Your task to perform on an android device: How do I get to the nearest IKEA? Image 0: 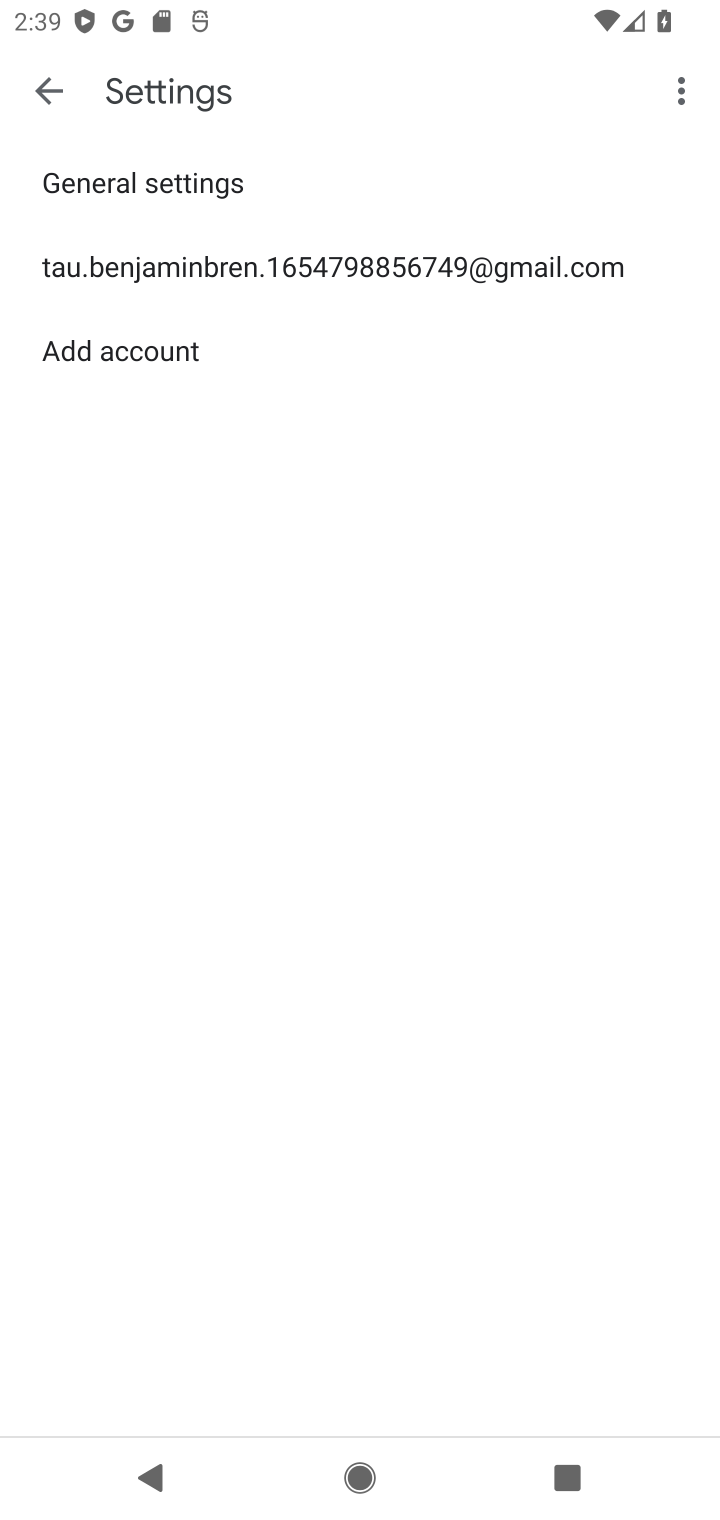
Step 0: press home button
Your task to perform on an android device: How do I get to the nearest IKEA? Image 1: 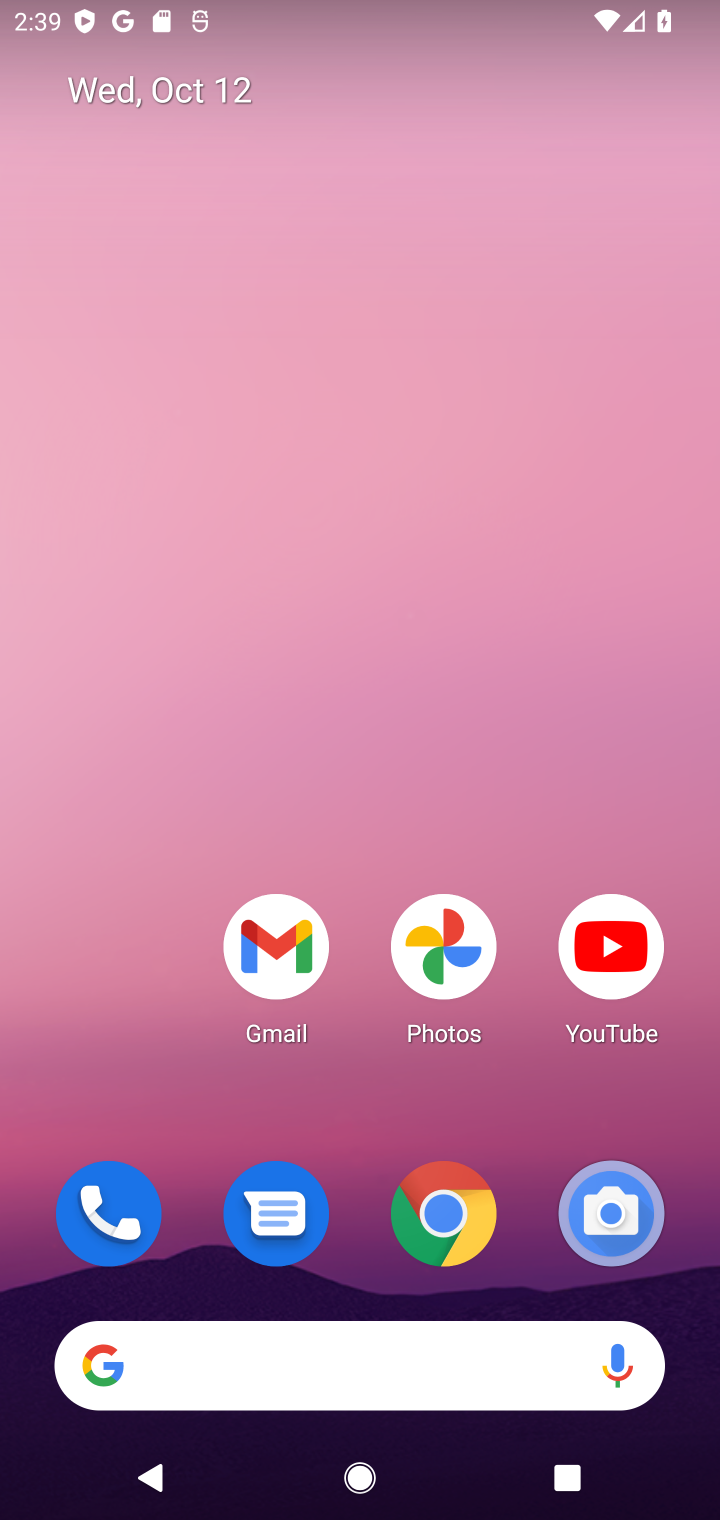
Step 1: click (328, 1370)
Your task to perform on an android device: How do I get to the nearest IKEA? Image 2: 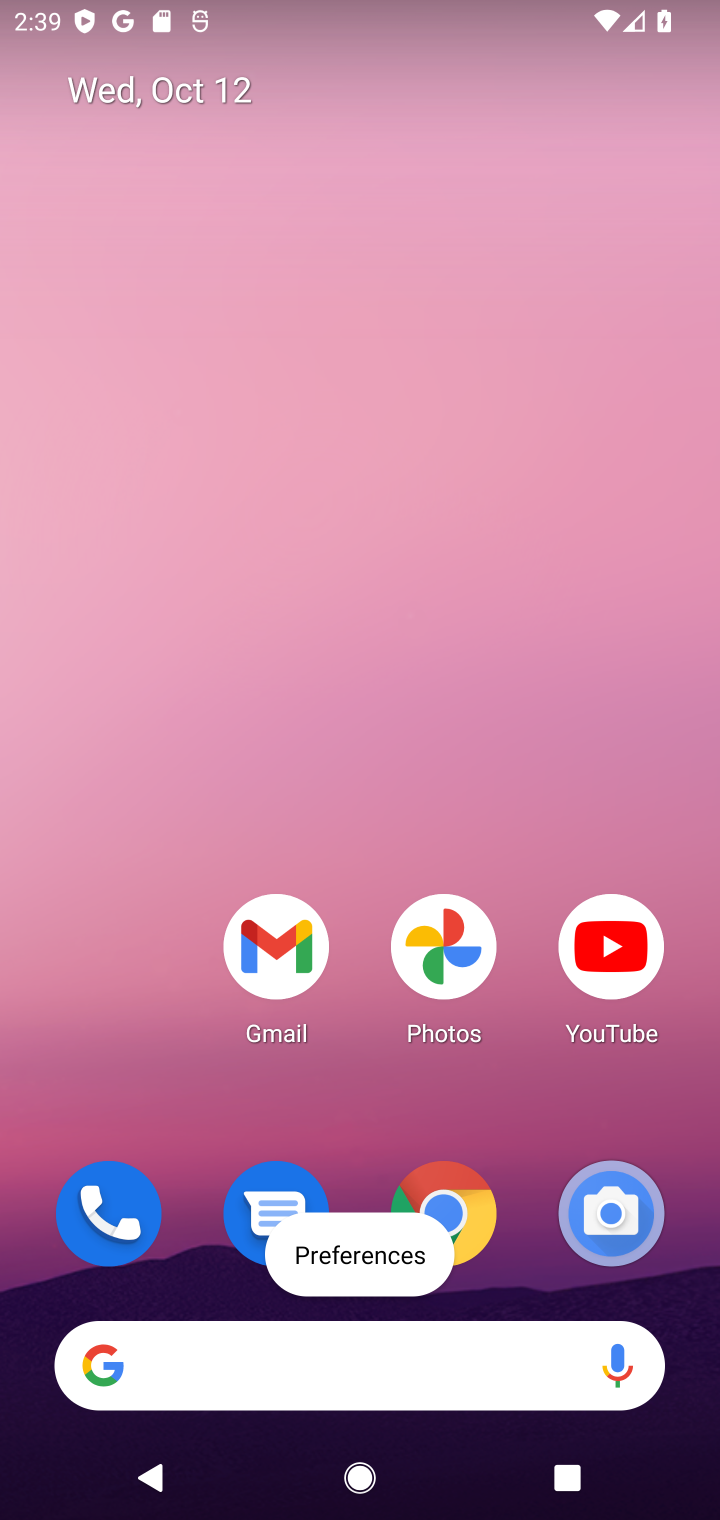
Step 2: click (226, 1357)
Your task to perform on an android device: How do I get to the nearest IKEA? Image 3: 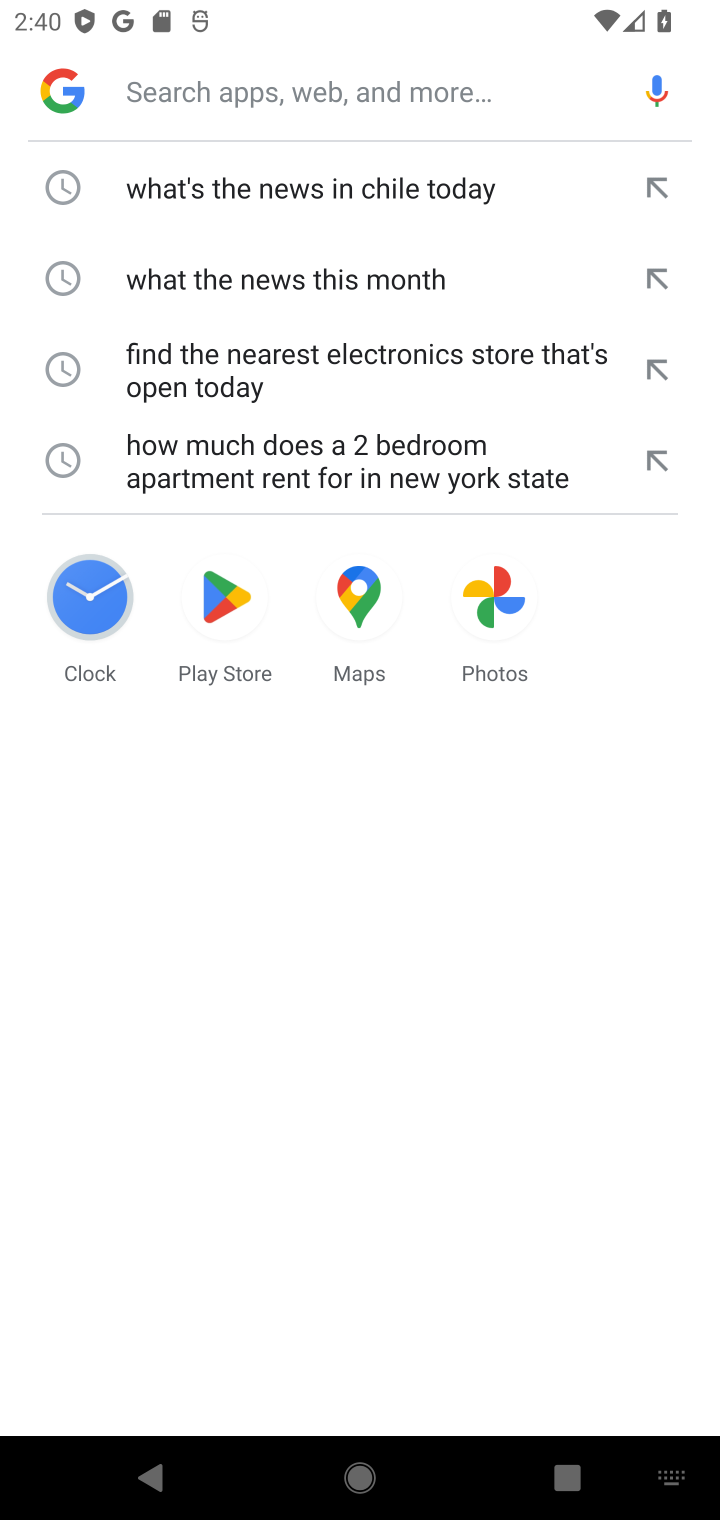
Step 3: click (223, 88)
Your task to perform on an android device: How do I get to the nearest IKEA? Image 4: 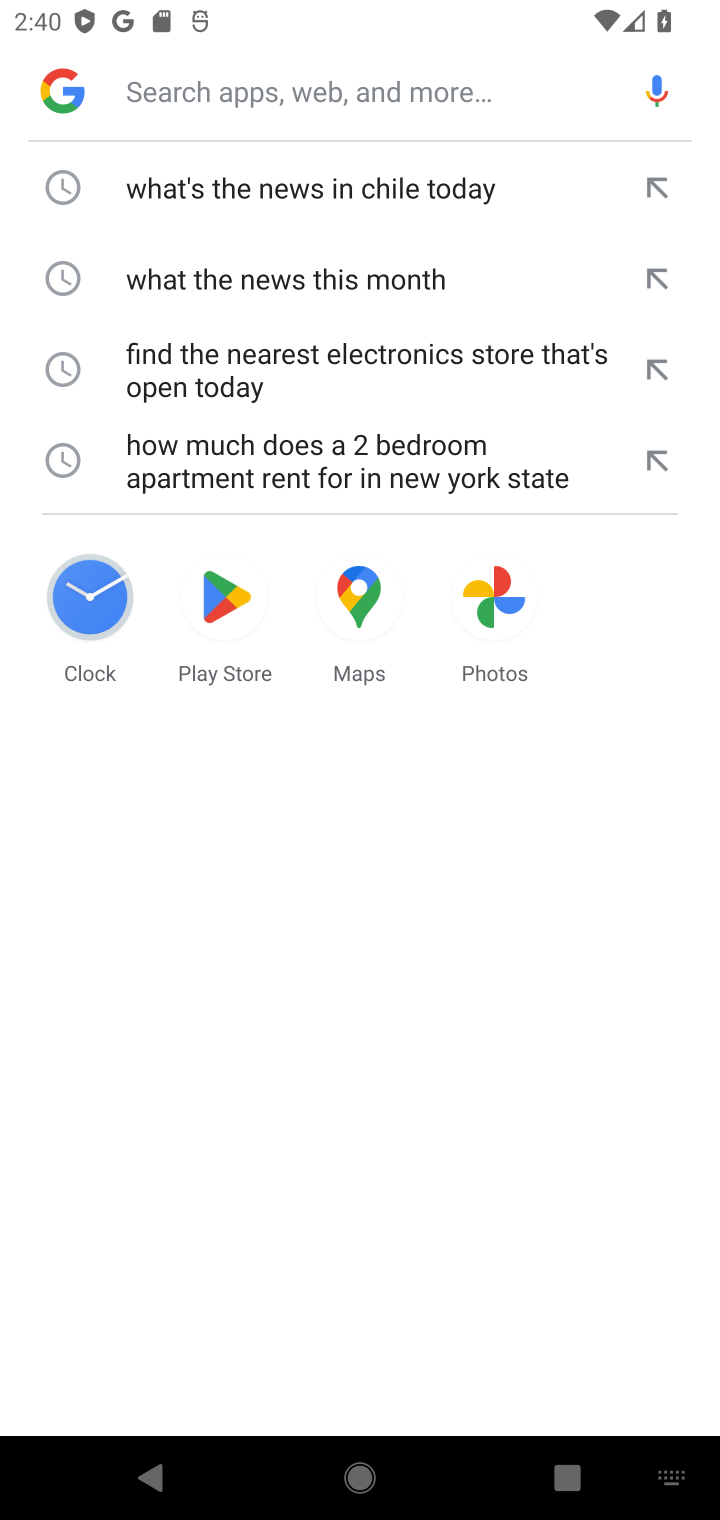
Step 4: type "How do I get to the nearest IKEA?"
Your task to perform on an android device: How do I get to the nearest IKEA? Image 5: 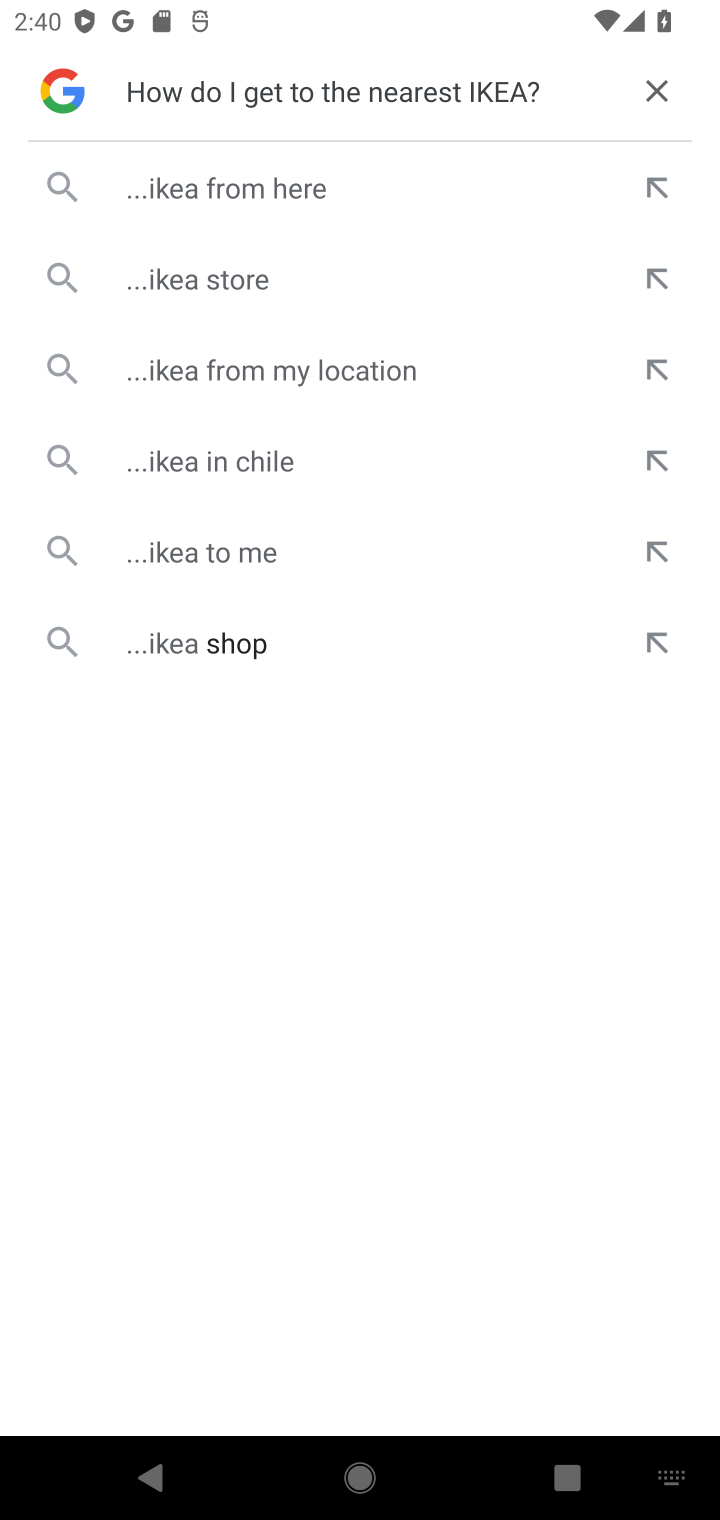
Step 5: click (276, 202)
Your task to perform on an android device: How do I get to the nearest IKEA? Image 6: 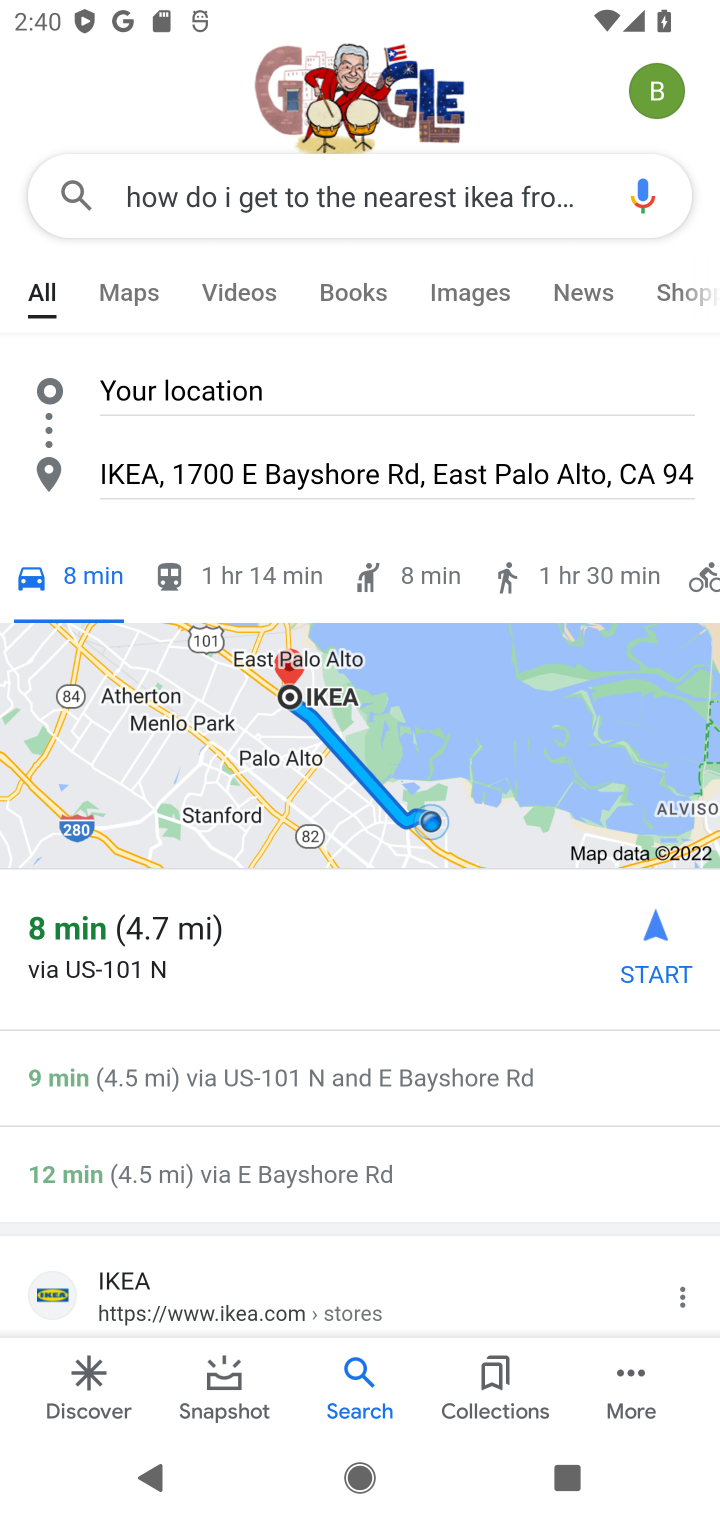
Step 6: task complete